Your task to perform on an android device: Open Google Maps and go to "Timeline" Image 0: 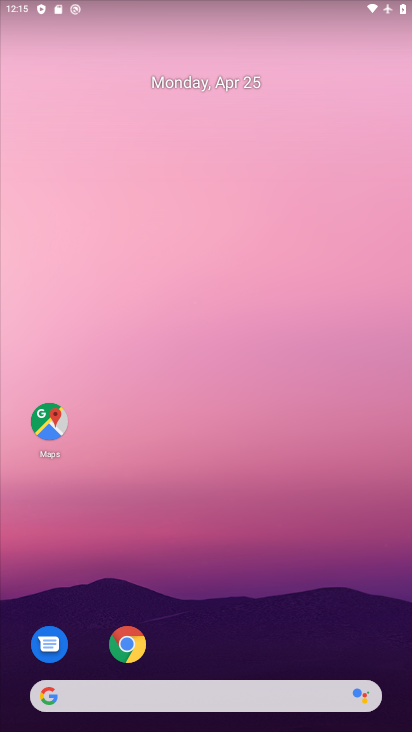
Step 0: click (53, 426)
Your task to perform on an android device: Open Google Maps and go to "Timeline" Image 1: 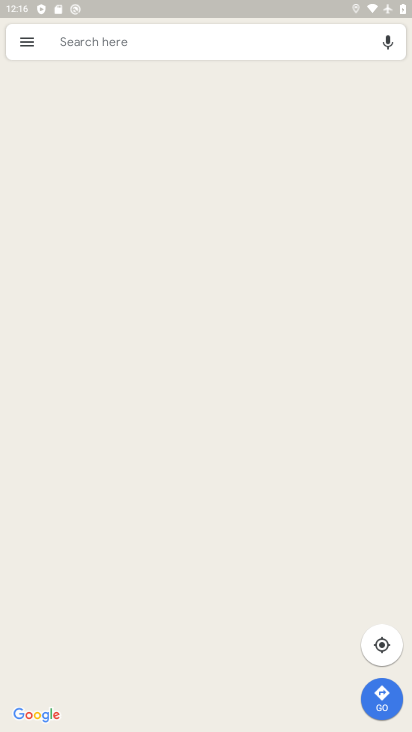
Step 1: click (25, 51)
Your task to perform on an android device: Open Google Maps and go to "Timeline" Image 2: 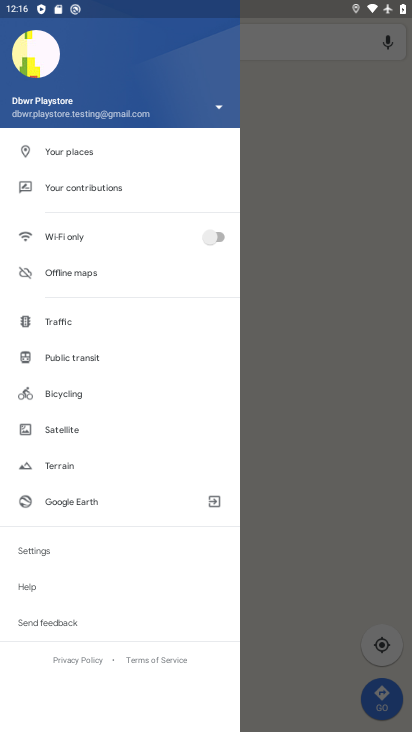
Step 2: click (72, 150)
Your task to perform on an android device: Open Google Maps and go to "Timeline" Image 3: 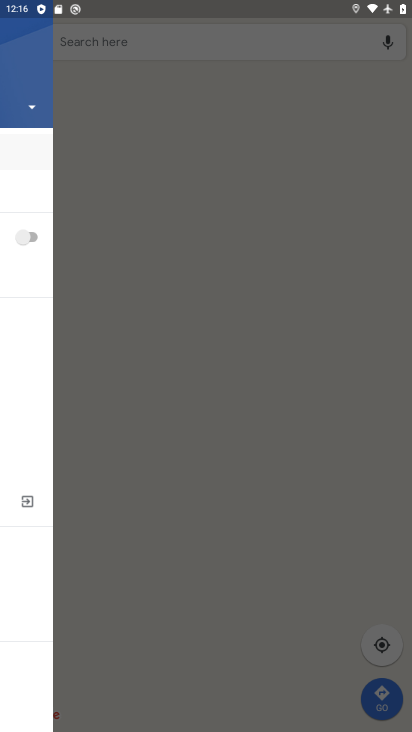
Step 3: task complete